Your task to perform on an android device: choose inbox layout in the gmail app Image 0: 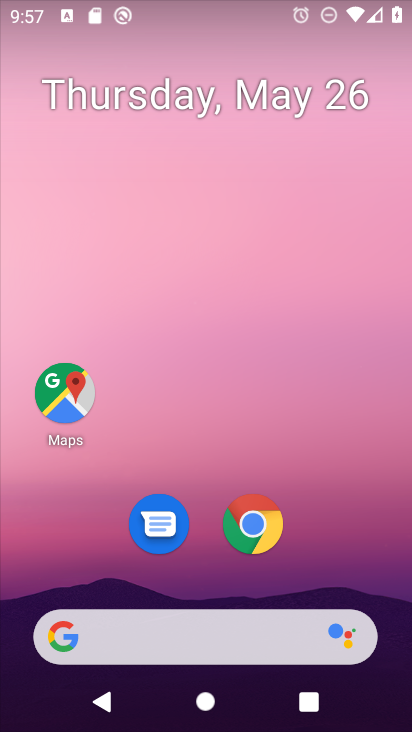
Step 0: drag from (219, 461) to (216, 12)
Your task to perform on an android device: choose inbox layout in the gmail app Image 1: 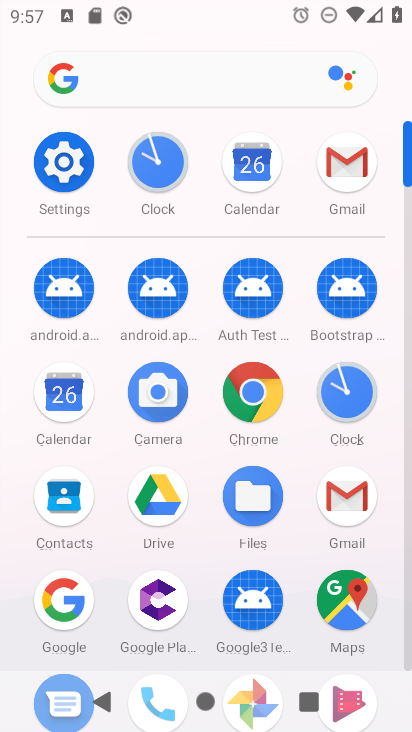
Step 1: click (345, 159)
Your task to perform on an android device: choose inbox layout in the gmail app Image 2: 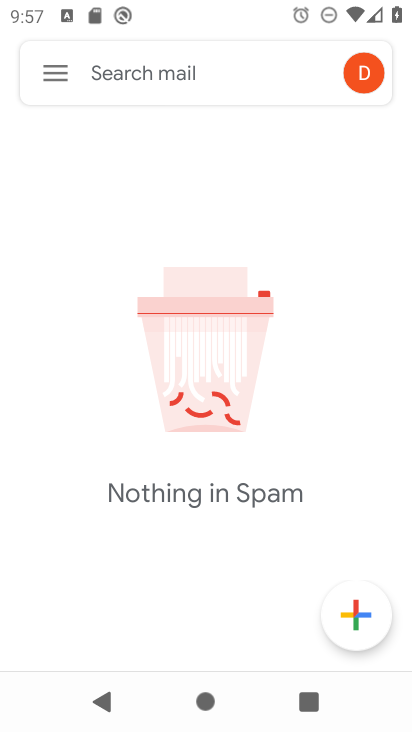
Step 2: click (59, 73)
Your task to perform on an android device: choose inbox layout in the gmail app Image 3: 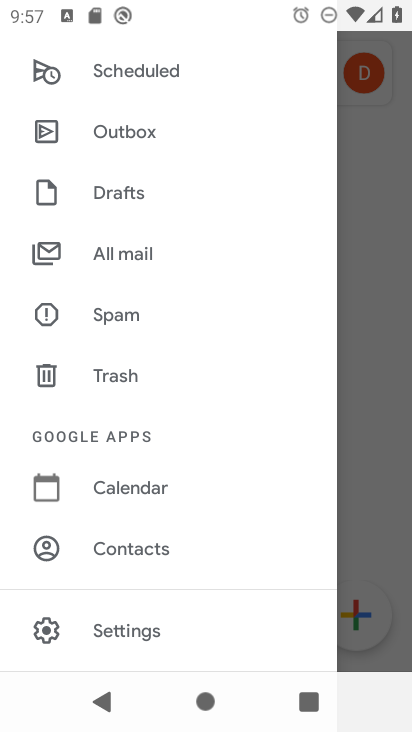
Step 3: click (141, 628)
Your task to perform on an android device: choose inbox layout in the gmail app Image 4: 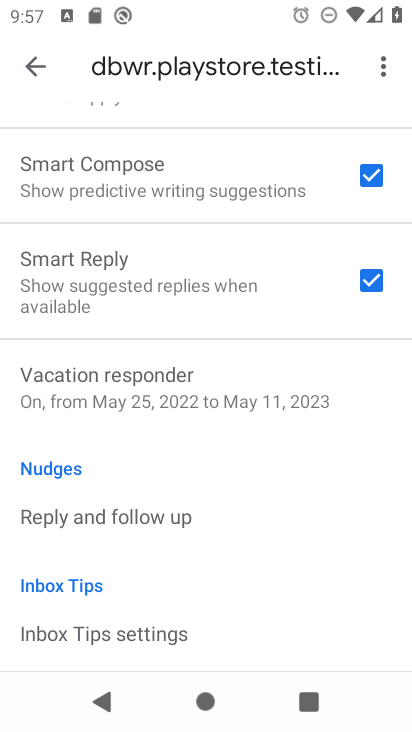
Step 4: drag from (197, 207) to (222, 665)
Your task to perform on an android device: choose inbox layout in the gmail app Image 5: 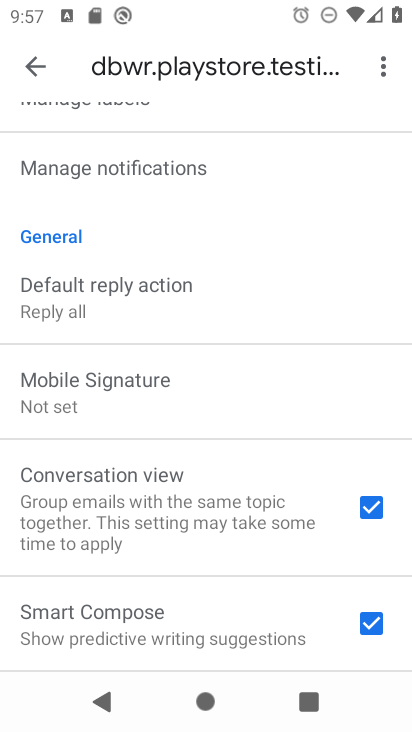
Step 5: drag from (212, 189) to (188, 514)
Your task to perform on an android device: choose inbox layout in the gmail app Image 6: 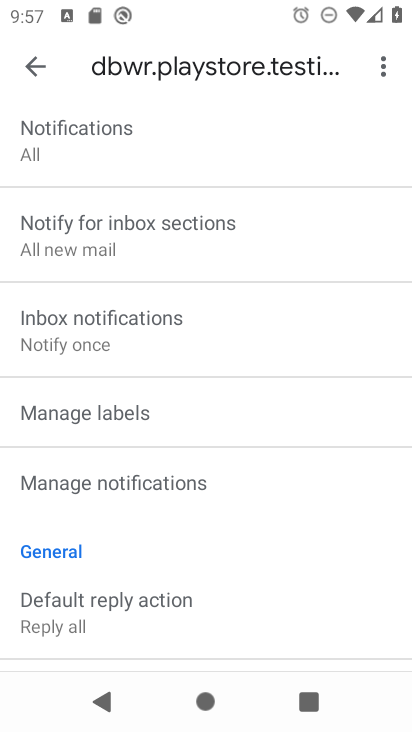
Step 6: drag from (166, 200) to (214, 616)
Your task to perform on an android device: choose inbox layout in the gmail app Image 7: 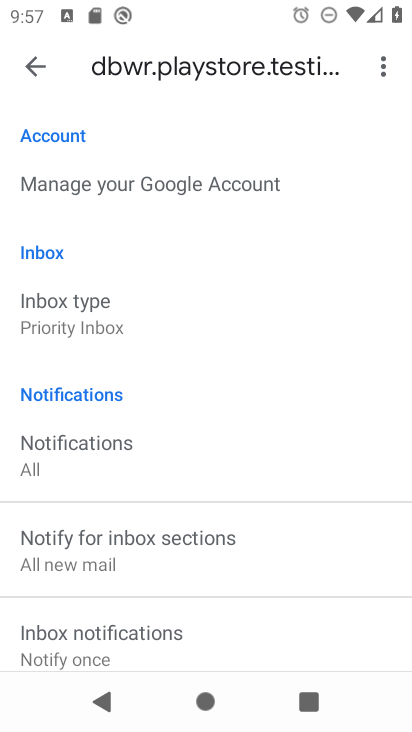
Step 7: click (102, 310)
Your task to perform on an android device: choose inbox layout in the gmail app Image 8: 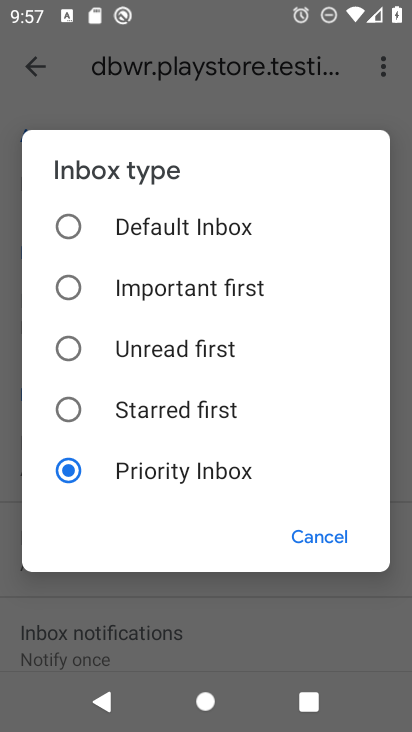
Step 8: click (62, 216)
Your task to perform on an android device: choose inbox layout in the gmail app Image 9: 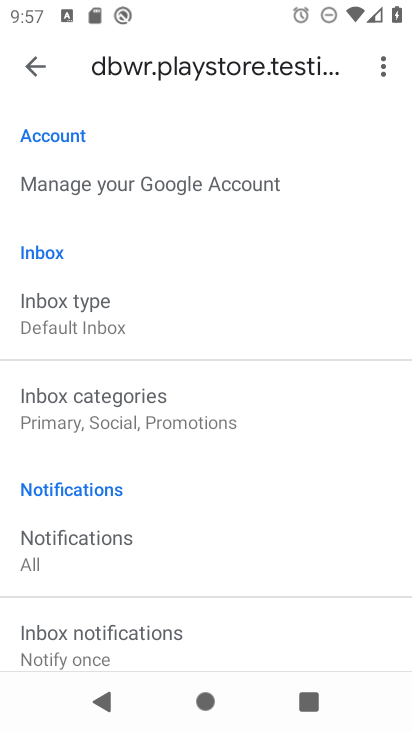
Step 9: task complete